Your task to perform on an android device: Go to battery settings Image 0: 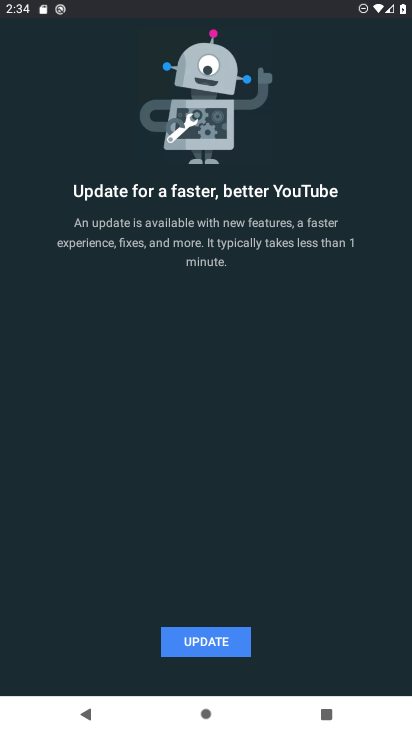
Step 0: press home button
Your task to perform on an android device: Go to battery settings Image 1: 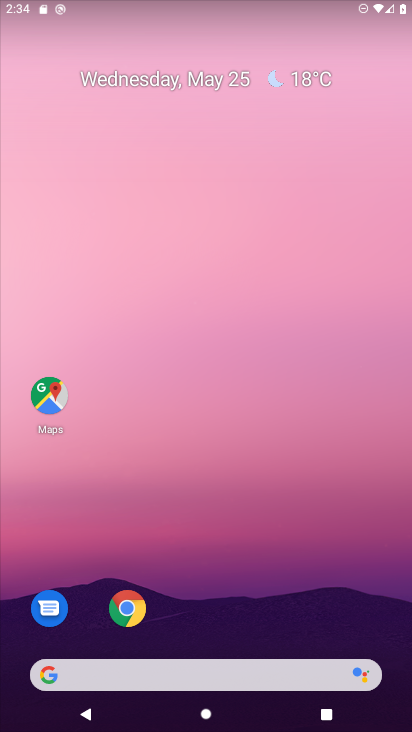
Step 1: drag from (378, 625) to (318, 138)
Your task to perform on an android device: Go to battery settings Image 2: 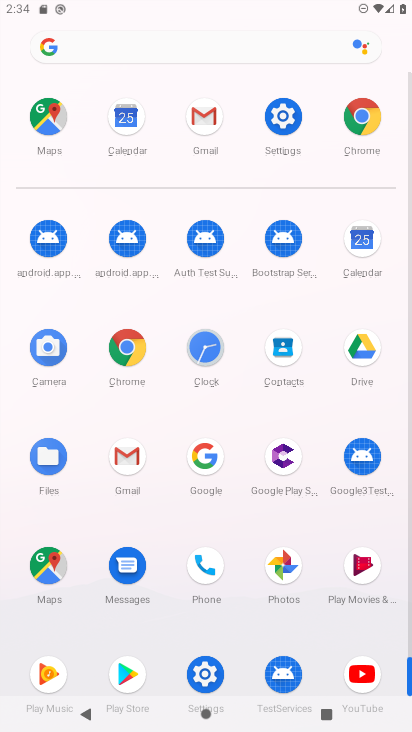
Step 2: click (206, 676)
Your task to perform on an android device: Go to battery settings Image 3: 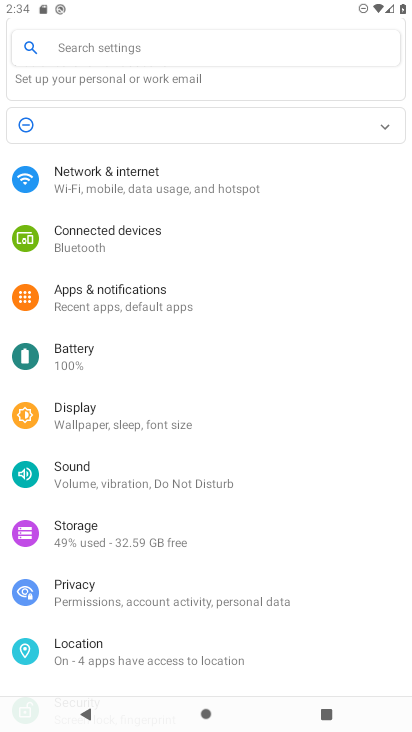
Step 3: click (74, 349)
Your task to perform on an android device: Go to battery settings Image 4: 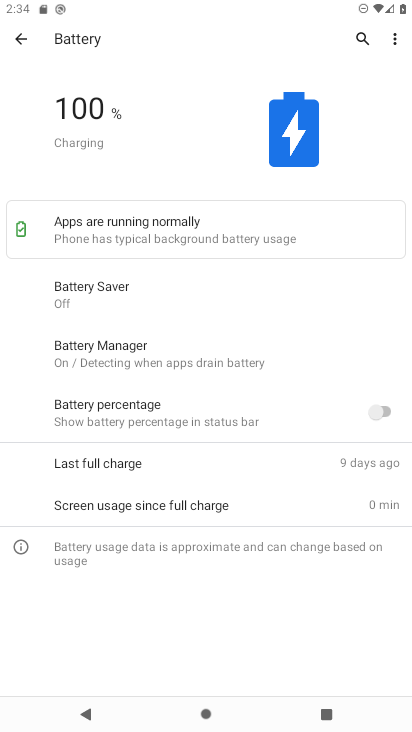
Step 4: task complete